Your task to perform on an android device: Open Yahoo.com Image 0: 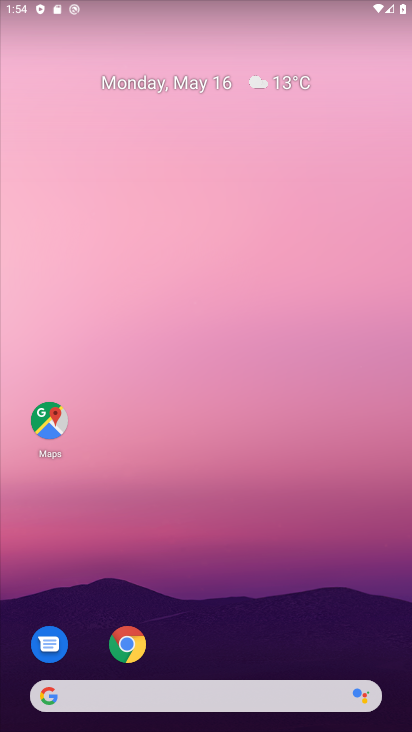
Step 0: click (125, 637)
Your task to perform on an android device: Open Yahoo.com Image 1: 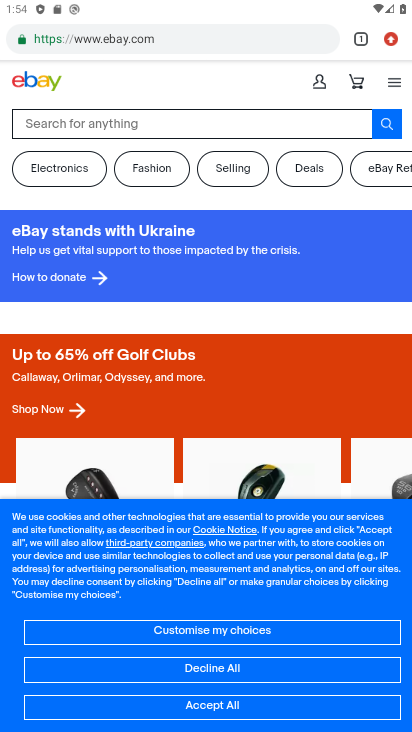
Step 1: click (389, 35)
Your task to perform on an android device: Open Yahoo.com Image 2: 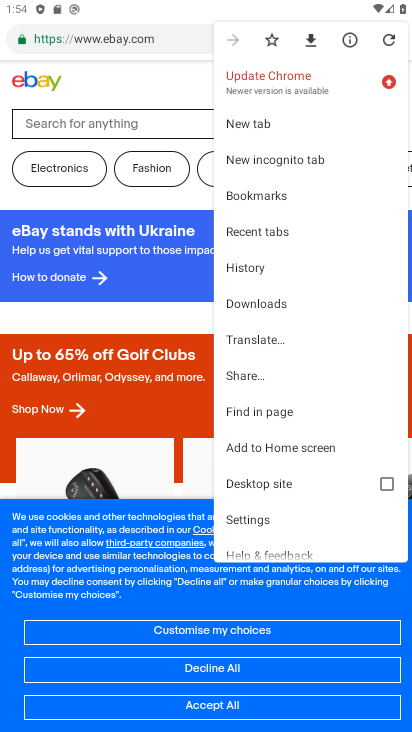
Step 2: click (248, 129)
Your task to perform on an android device: Open Yahoo.com Image 3: 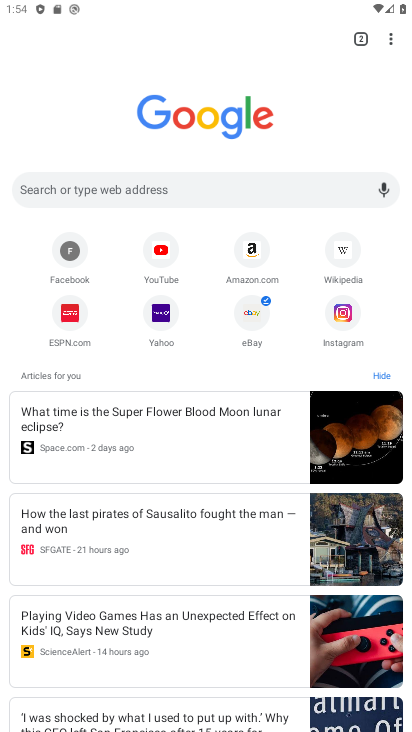
Step 3: click (159, 315)
Your task to perform on an android device: Open Yahoo.com Image 4: 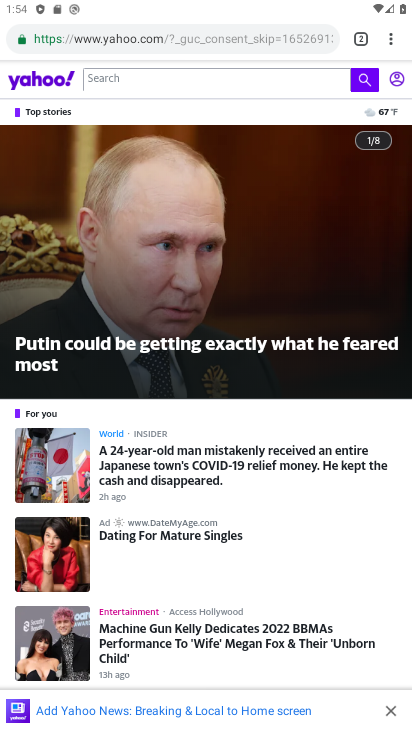
Step 4: task complete